Your task to perform on an android device: toggle airplane mode Image 0: 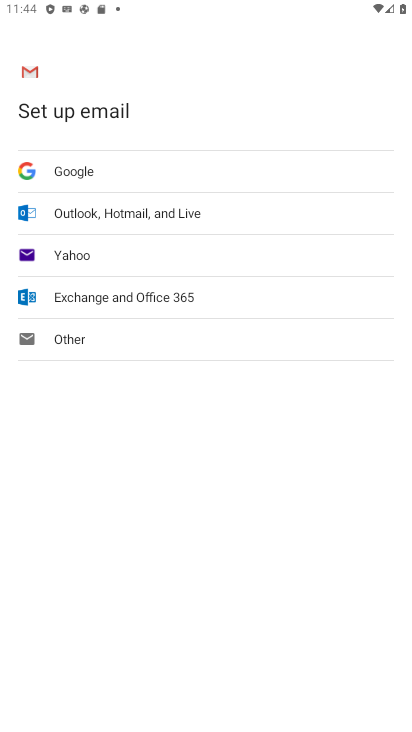
Step 0: press home button
Your task to perform on an android device: toggle airplane mode Image 1: 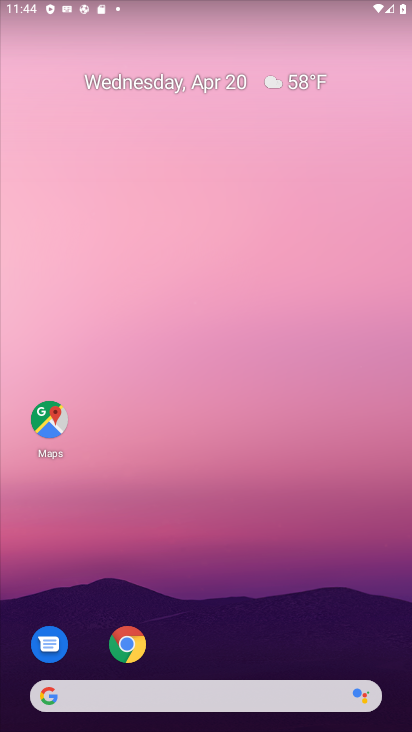
Step 1: drag from (198, 654) to (184, 231)
Your task to perform on an android device: toggle airplane mode Image 2: 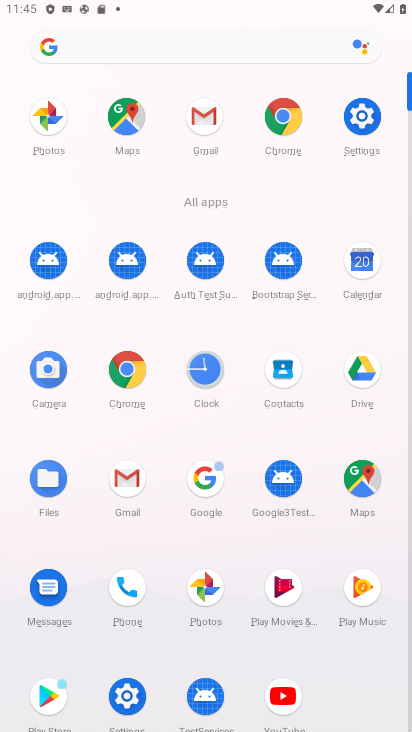
Step 2: click (125, 699)
Your task to perform on an android device: toggle airplane mode Image 3: 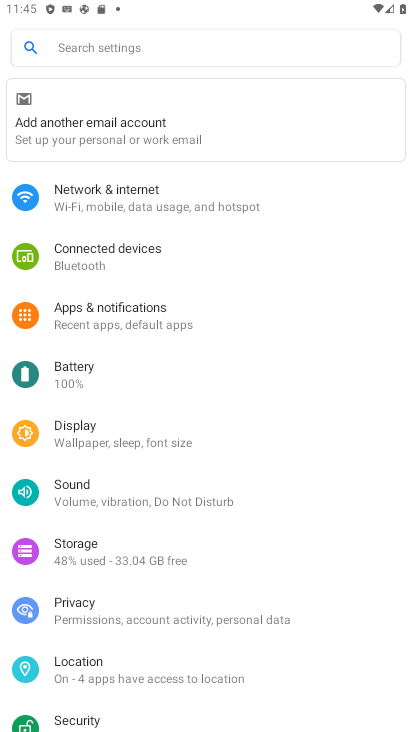
Step 3: click (168, 211)
Your task to perform on an android device: toggle airplane mode Image 4: 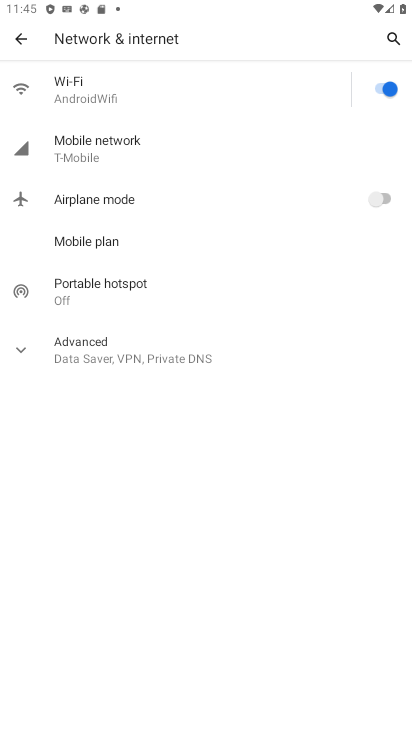
Step 4: click (379, 201)
Your task to perform on an android device: toggle airplane mode Image 5: 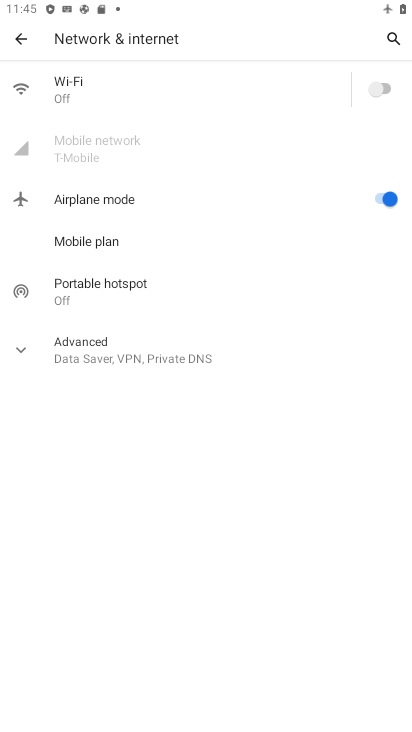
Step 5: task complete